Your task to perform on an android device: open sync settings in chrome Image 0: 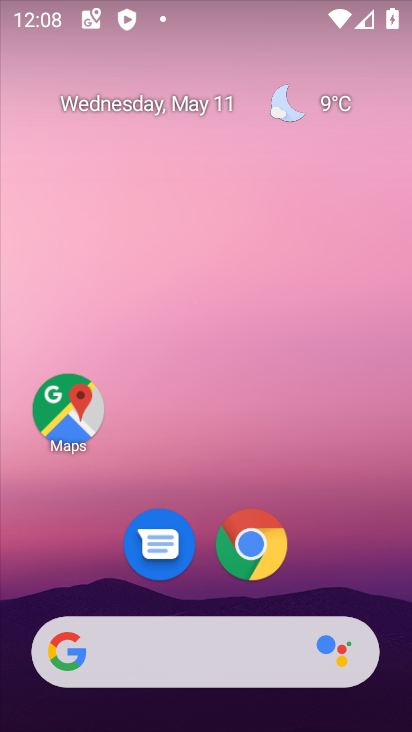
Step 0: click (254, 545)
Your task to perform on an android device: open sync settings in chrome Image 1: 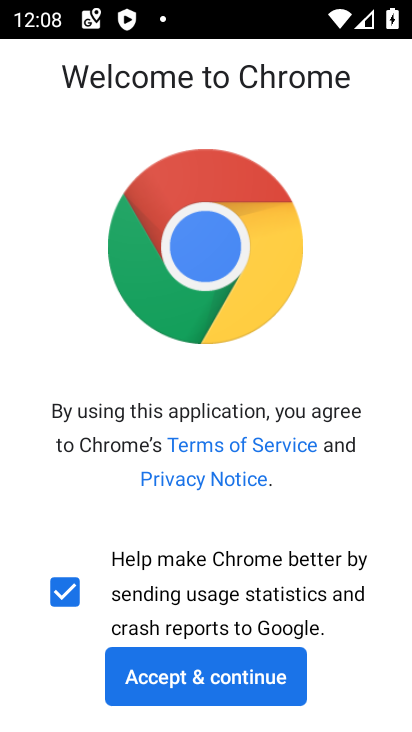
Step 1: click (200, 679)
Your task to perform on an android device: open sync settings in chrome Image 2: 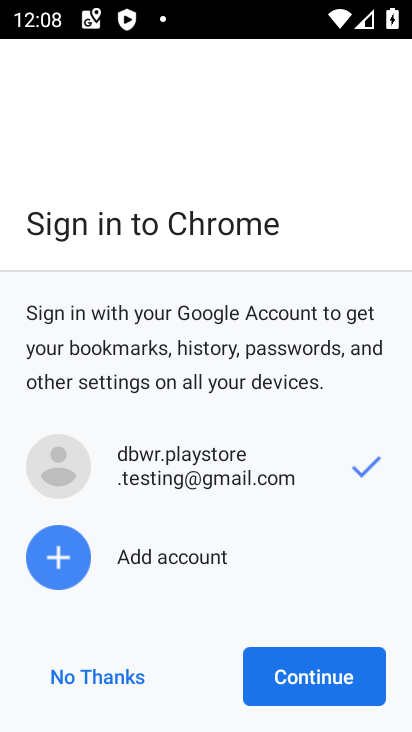
Step 2: click (308, 678)
Your task to perform on an android device: open sync settings in chrome Image 3: 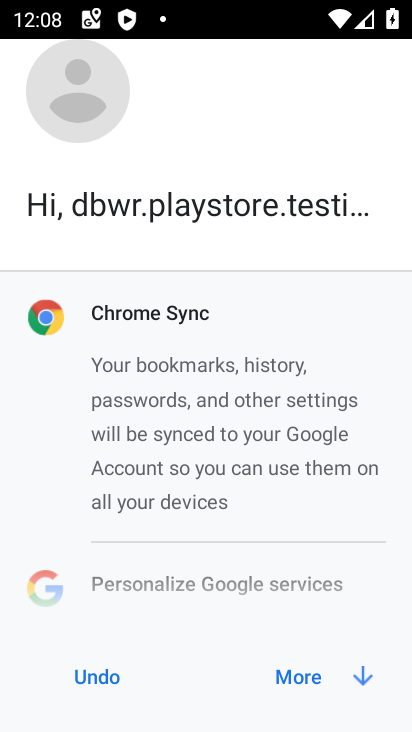
Step 3: click (303, 677)
Your task to perform on an android device: open sync settings in chrome Image 4: 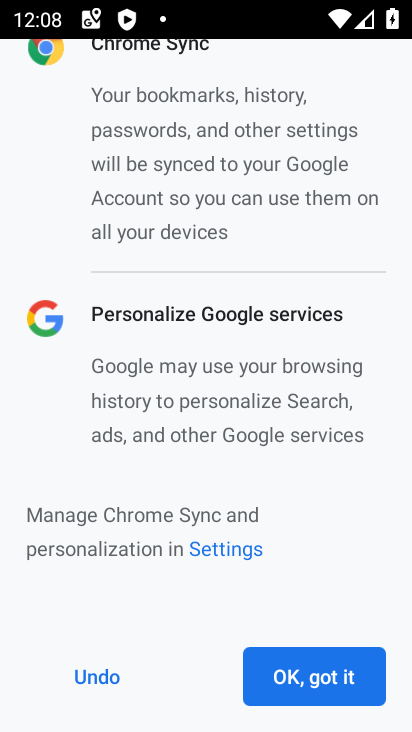
Step 4: click (303, 677)
Your task to perform on an android device: open sync settings in chrome Image 5: 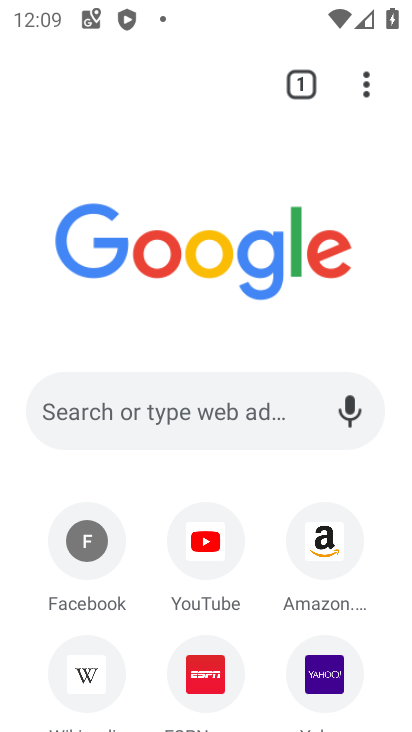
Step 5: click (363, 86)
Your task to perform on an android device: open sync settings in chrome Image 6: 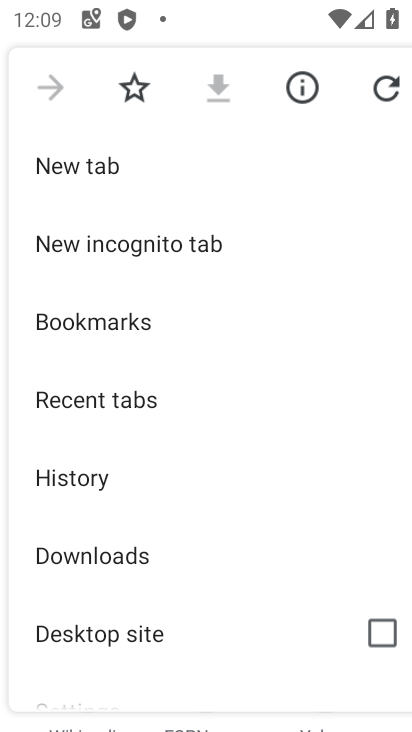
Step 6: drag from (185, 578) to (199, 268)
Your task to perform on an android device: open sync settings in chrome Image 7: 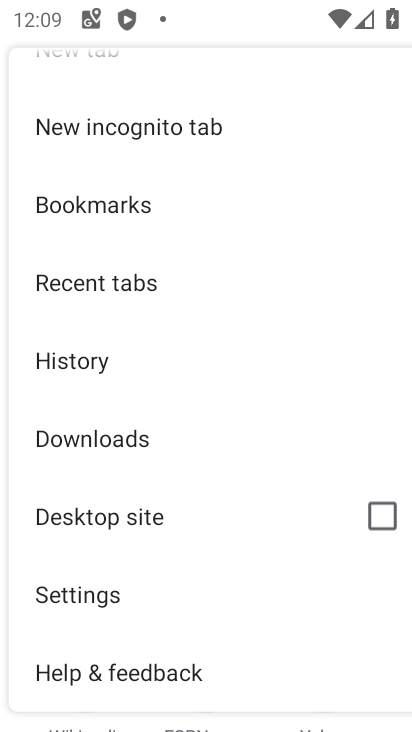
Step 7: click (58, 595)
Your task to perform on an android device: open sync settings in chrome Image 8: 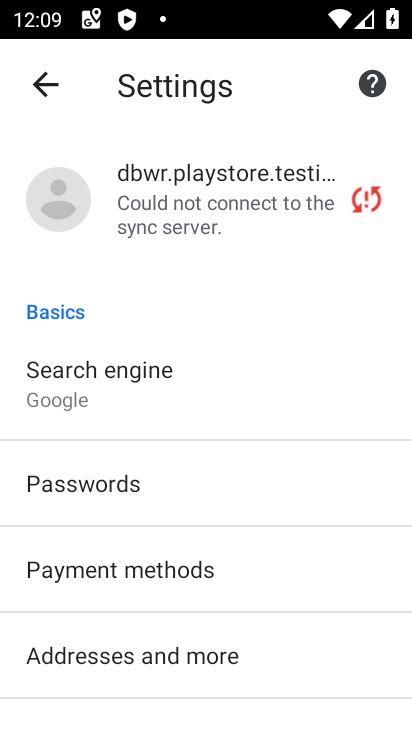
Step 8: click (142, 184)
Your task to perform on an android device: open sync settings in chrome Image 9: 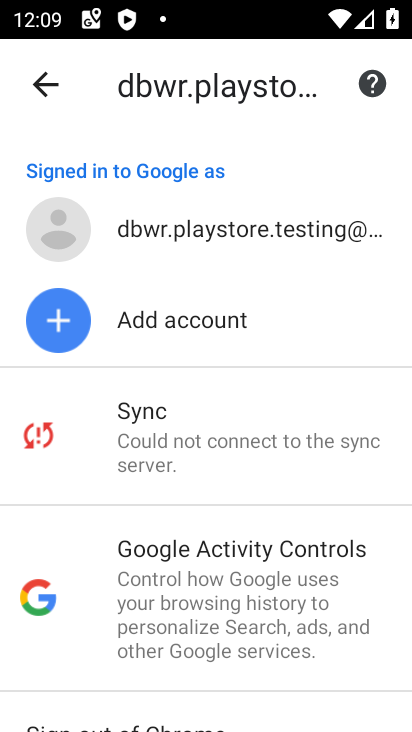
Step 9: click (139, 420)
Your task to perform on an android device: open sync settings in chrome Image 10: 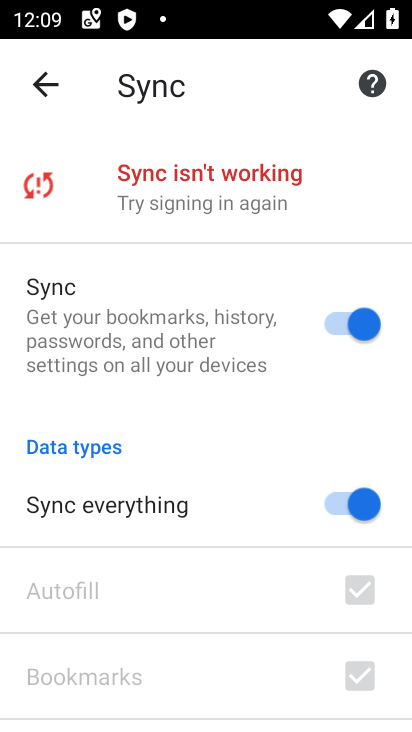
Step 10: task complete